Your task to perform on an android device: set the stopwatch Image 0: 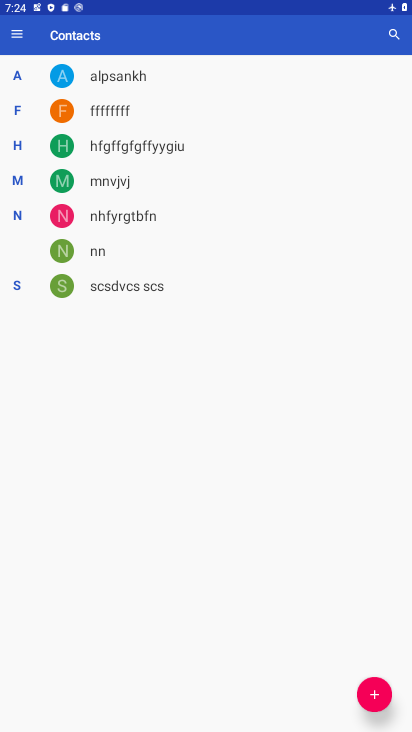
Step 0: press home button
Your task to perform on an android device: set the stopwatch Image 1: 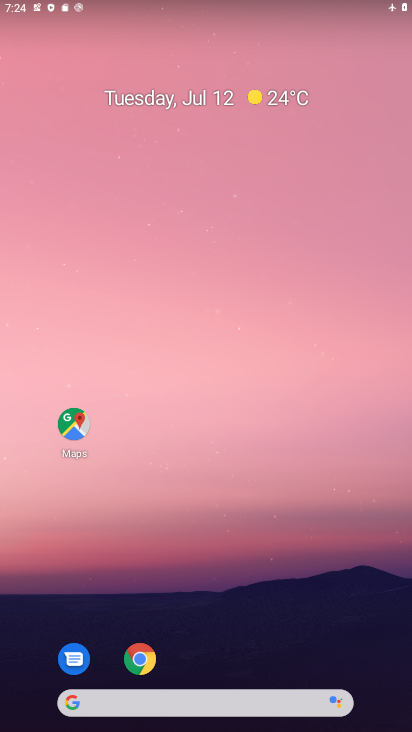
Step 1: drag from (341, 613) to (217, 1)
Your task to perform on an android device: set the stopwatch Image 2: 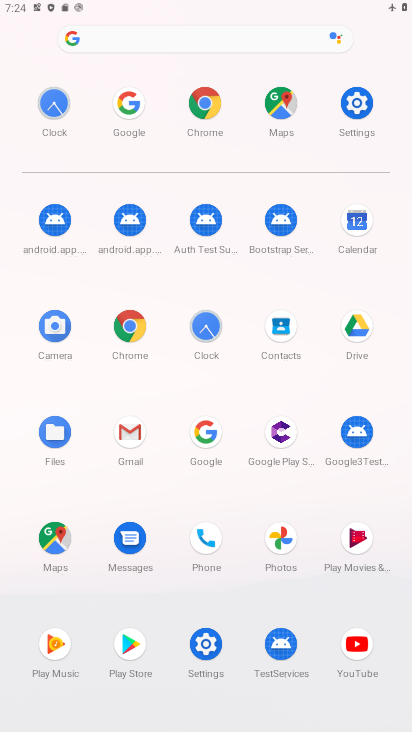
Step 2: click (192, 331)
Your task to perform on an android device: set the stopwatch Image 3: 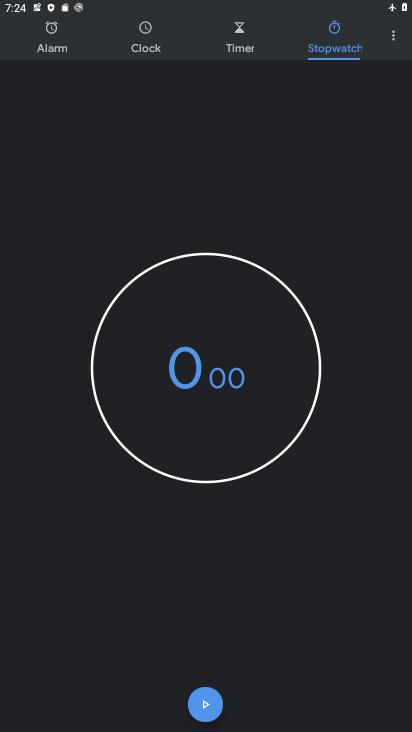
Step 3: click (203, 708)
Your task to perform on an android device: set the stopwatch Image 4: 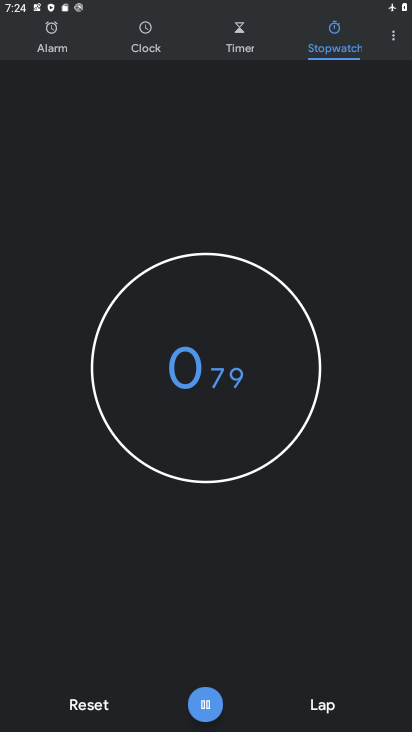
Step 4: click (203, 708)
Your task to perform on an android device: set the stopwatch Image 5: 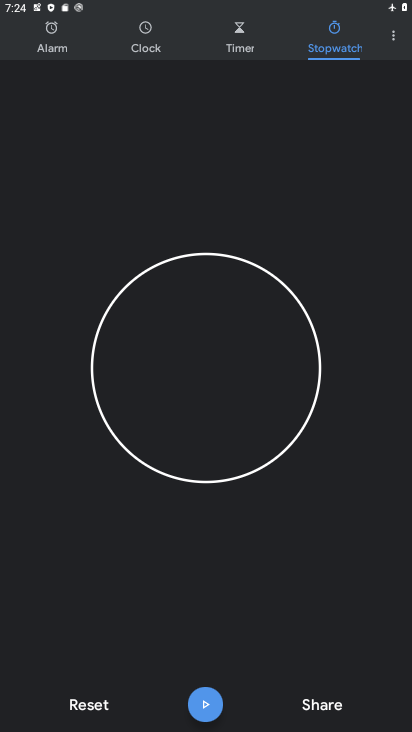
Step 5: task complete